Your task to perform on an android device: check out phone information Image 0: 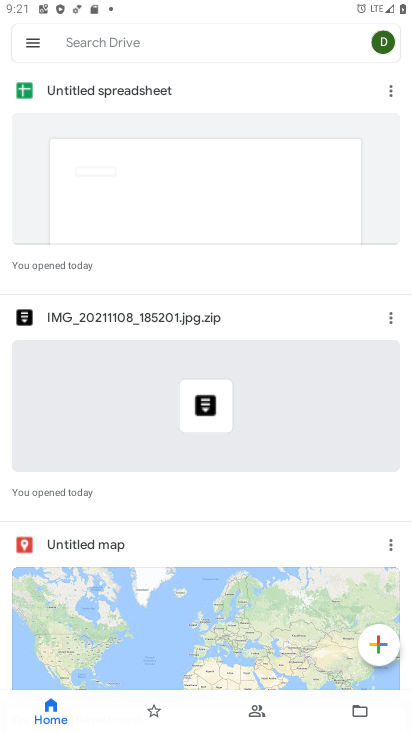
Step 0: press home button
Your task to perform on an android device: check out phone information Image 1: 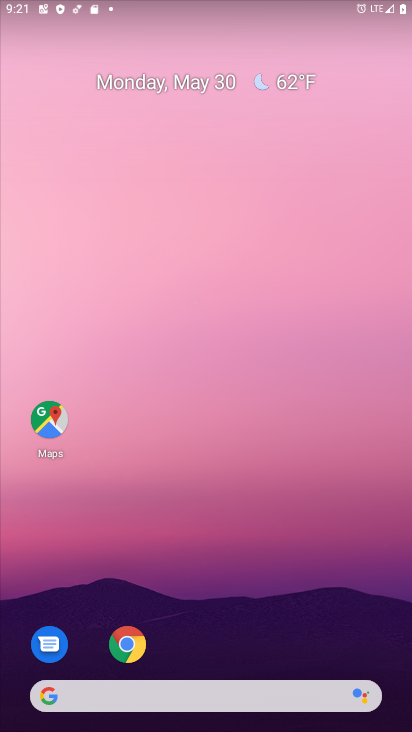
Step 1: drag from (366, 636) to (305, 18)
Your task to perform on an android device: check out phone information Image 2: 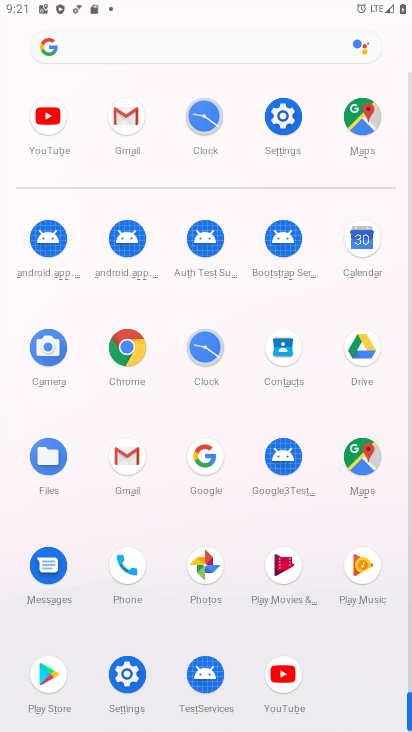
Step 2: click (128, 675)
Your task to perform on an android device: check out phone information Image 3: 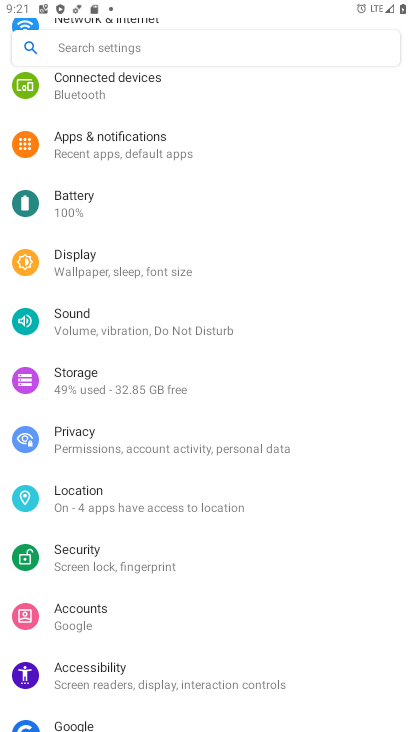
Step 3: drag from (326, 611) to (305, 115)
Your task to perform on an android device: check out phone information Image 4: 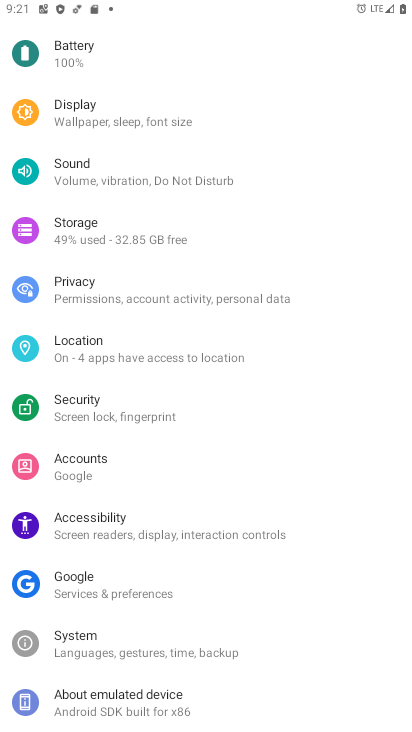
Step 4: click (84, 698)
Your task to perform on an android device: check out phone information Image 5: 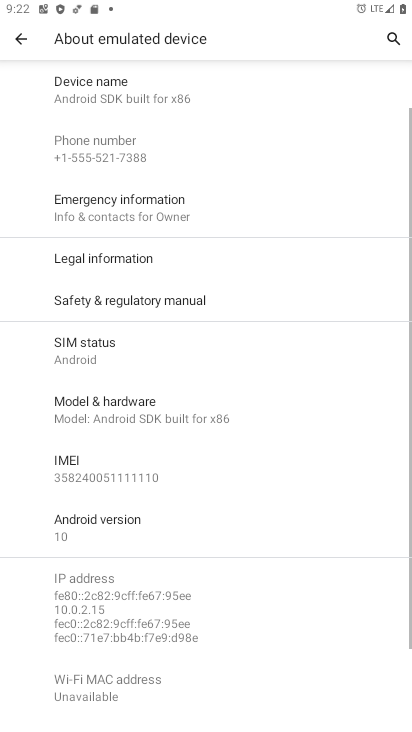
Step 5: task complete